Your task to perform on an android device: change the clock display to digital Image 0: 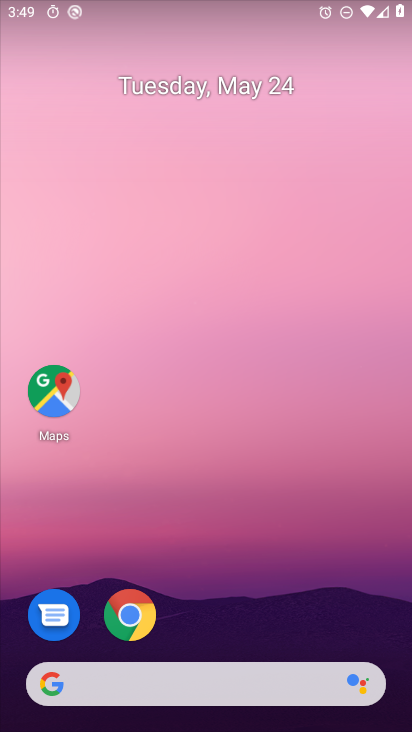
Step 0: drag from (214, 664) to (219, 220)
Your task to perform on an android device: change the clock display to digital Image 1: 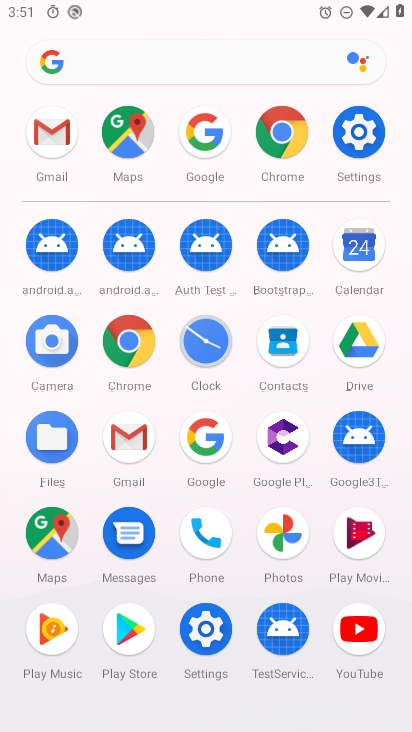
Step 1: click (196, 339)
Your task to perform on an android device: change the clock display to digital Image 2: 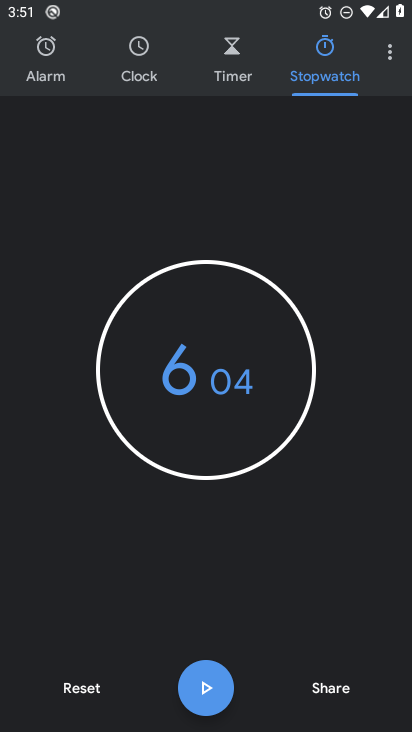
Step 2: click (391, 55)
Your task to perform on an android device: change the clock display to digital Image 3: 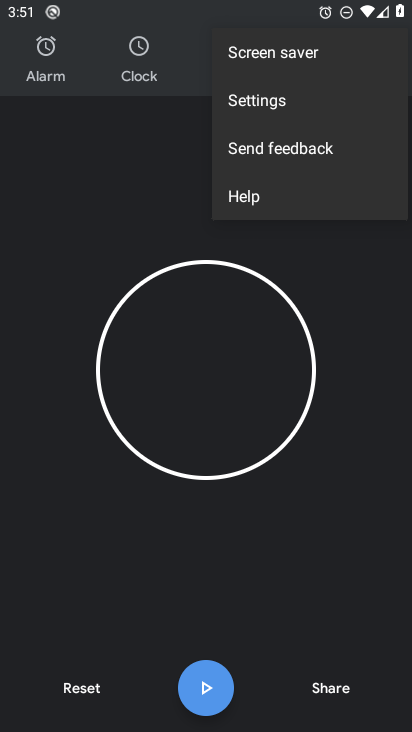
Step 3: click (260, 105)
Your task to perform on an android device: change the clock display to digital Image 4: 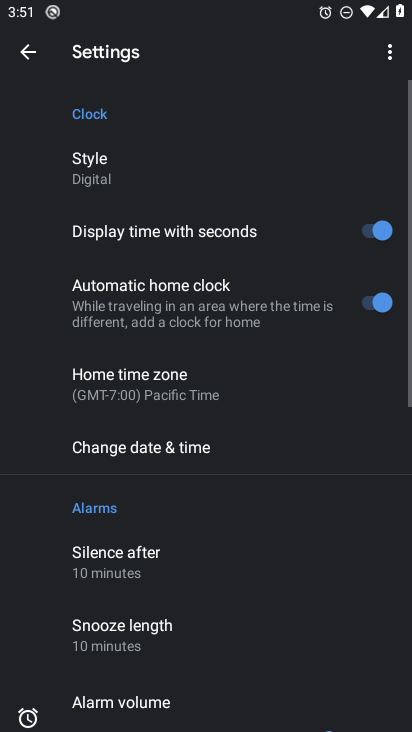
Step 4: click (97, 167)
Your task to perform on an android device: change the clock display to digital Image 5: 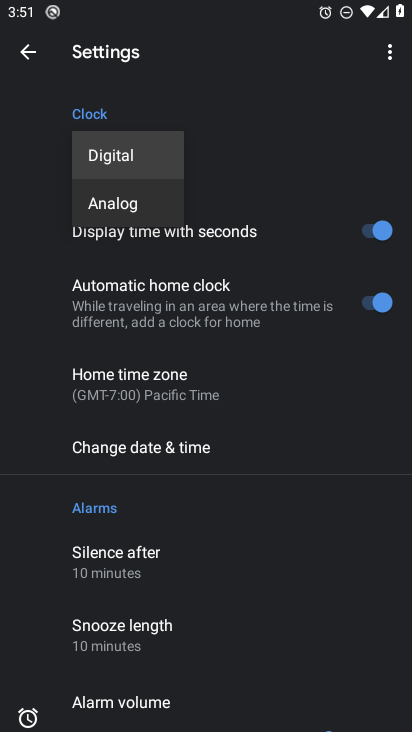
Step 5: click (92, 163)
Your task to perform on an android device: change the clock display to digital Image 6: 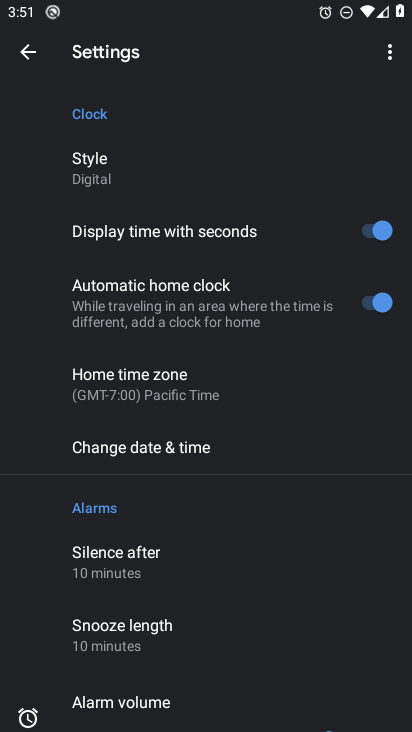
Step 6: task complete